Your task to perform on an android device: Open maps Image 0: 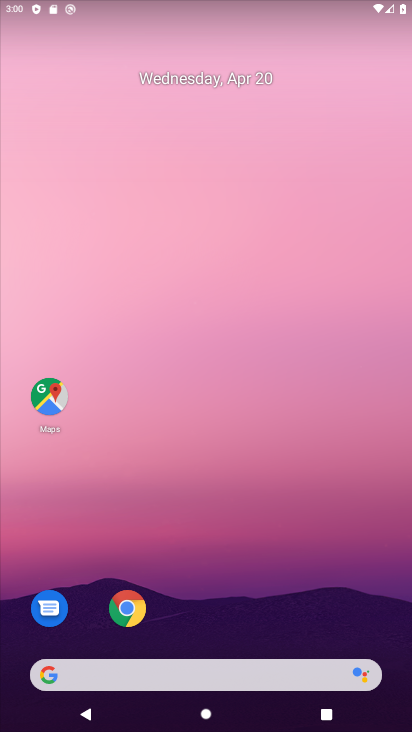
Step 0: click (128, 615)
Your task to perform on an android device: Open maps Image 1: 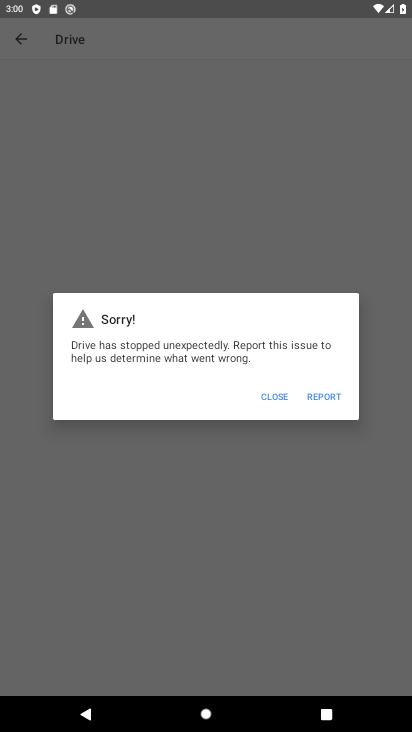
Step 1: click (128, 615)
Your task to perform on an android device: Open maps Image 2: 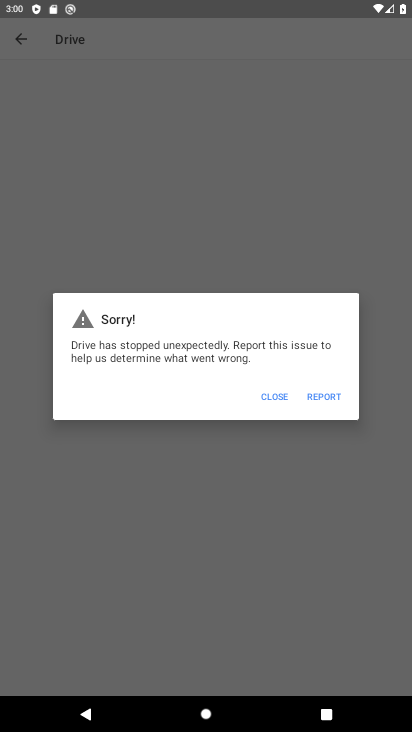
Step 2: press home button
Your task to perform on an android device: Open maps Image 3: 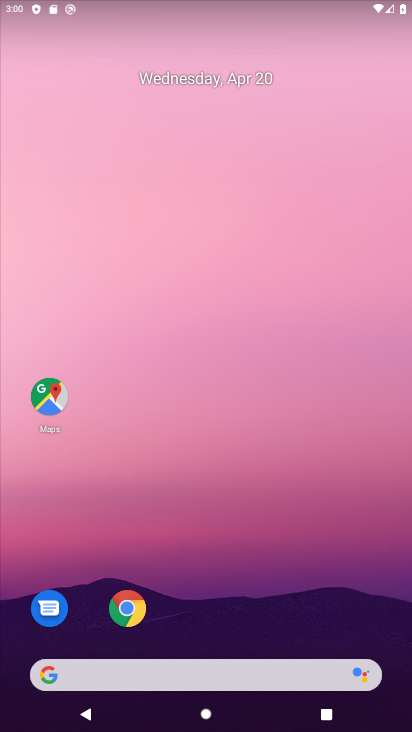
Step 3: click (47, 397)
Your task to perform on an android device: Open maps Image 4: 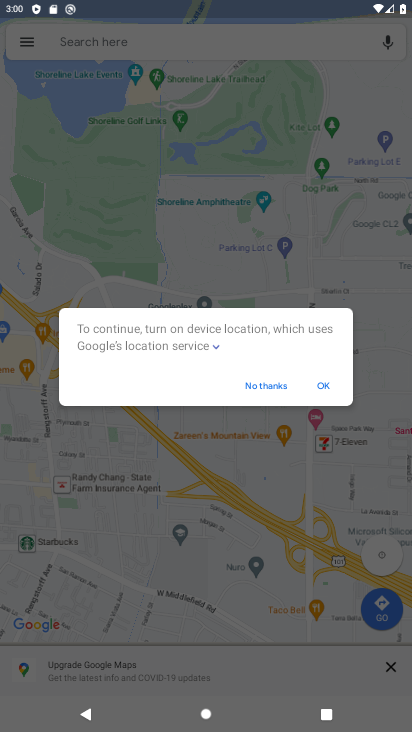
Step 4: click (320, 381)
Your task to perform on an android device: Open maps Image 5: 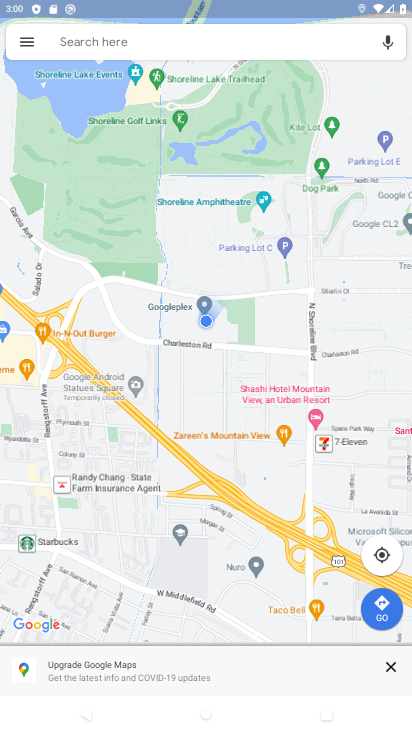
Step 5: task complete